Your task to perform on an android device: Go to calendar. Show me events next week Image 0: 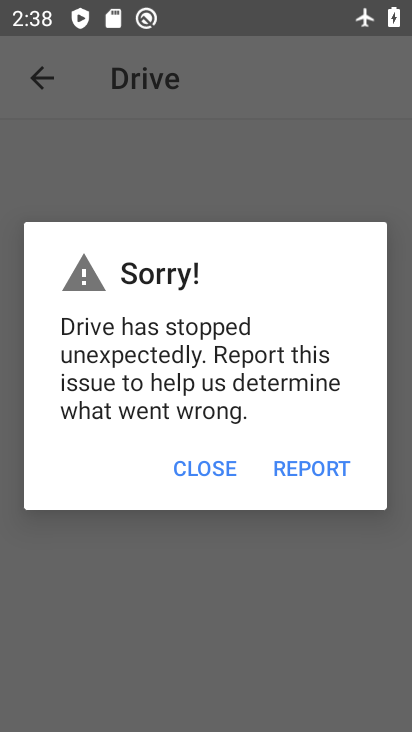
Step 0: press home button
Your task to perform on an android device: Go to calendar. Show me events next week Image 1: 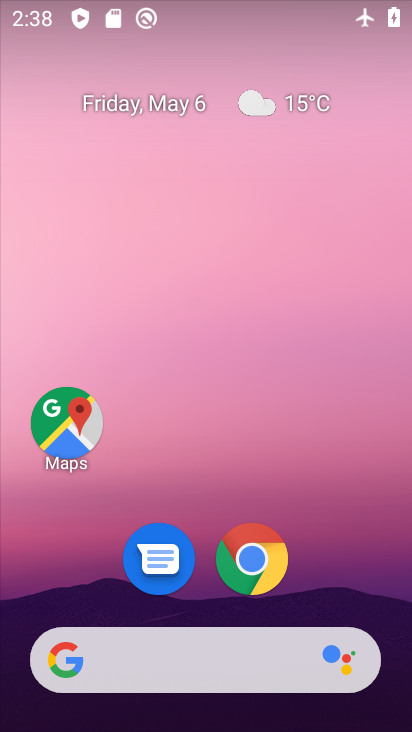
Step 1: drag from (343, 575) to (333, 72)
Your task to perform on an android device: Go to calendar. Show me events next week Image 2: 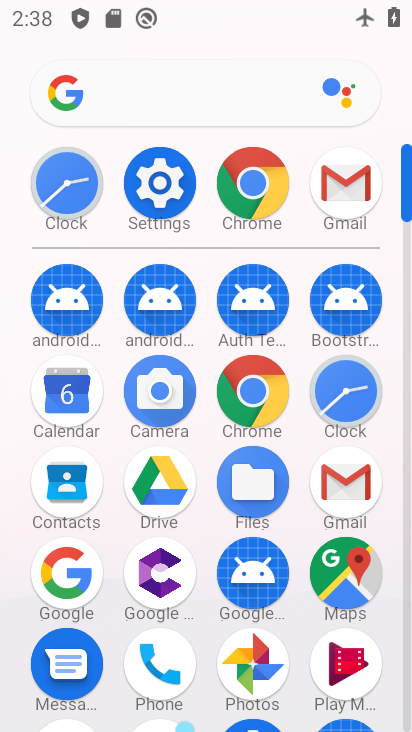
Step 2: click (72, 423)
Your task to perform on an android device: Go to calendar. Show me events next week Image 3: 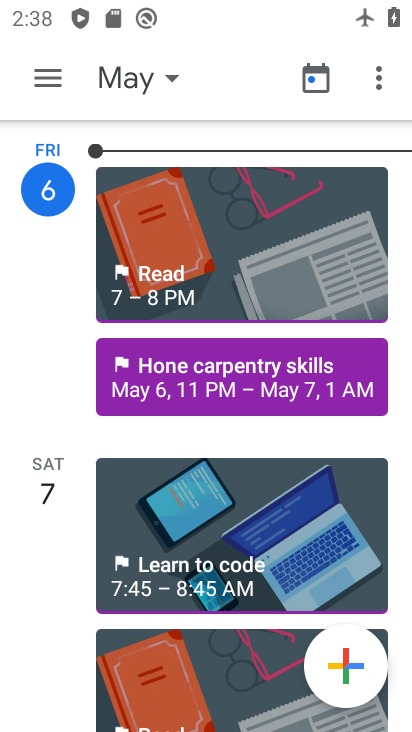
Step 3: click (38, 79)
Your task to perform on an android device: Go to calendar. Show me events next week Image 4: 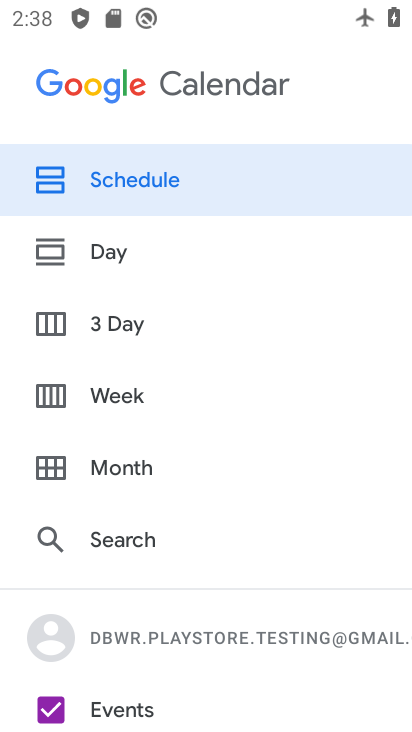
Step 4: click (100, 392)
Your task to perform on an android device: Go to calendar. Show me events next week Image 5: 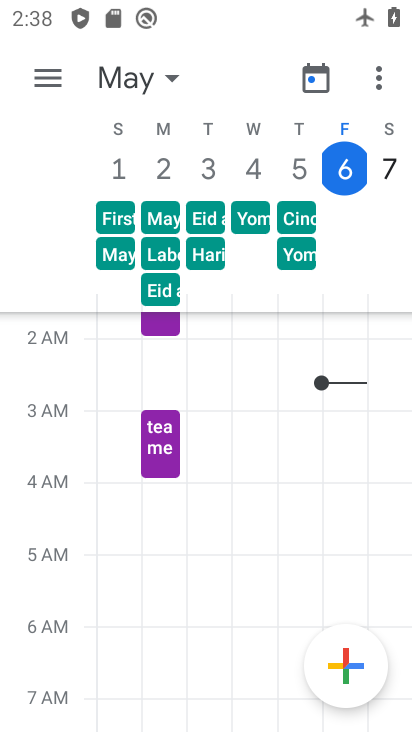
Step 5: task complete